Your task to perform on an android device: turn off notifications in google photos Image 0: 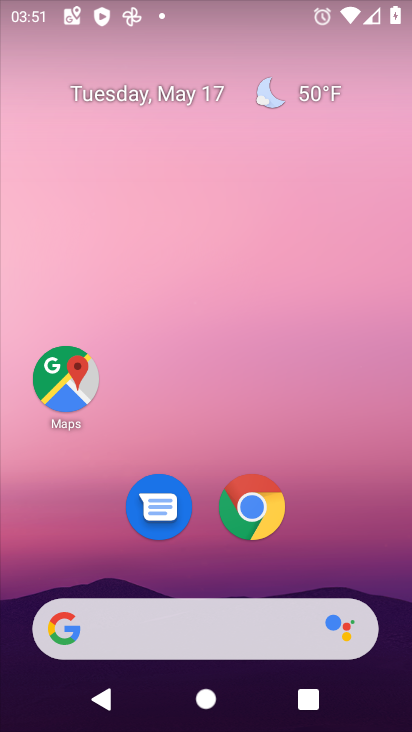
Step 0: drag from (308, 533) to (237, 108)
Your task to perform on an android device: turn off notifications in google photos Image 1: 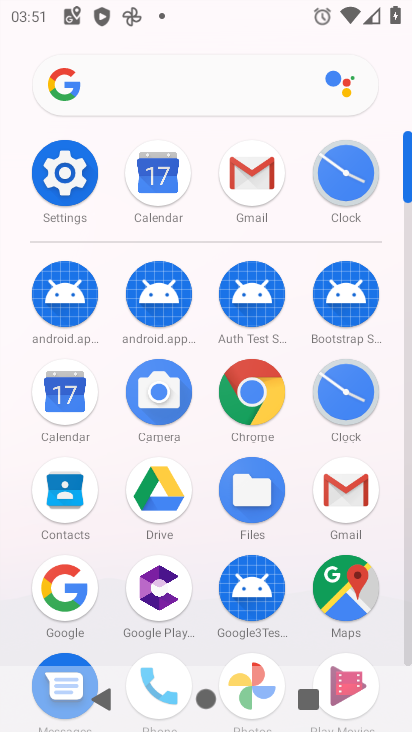
Step 1: drag from (299, 633) to (256, 259)
Your task to perform on an android device: turn off notifications in google photos Image 2: 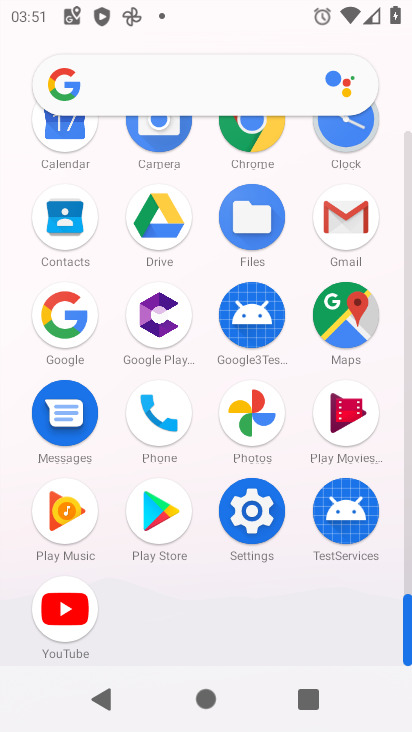
Step 2: click (258, 425)
Your task to perform on an android device: turn off notifications in google photos Image 3: 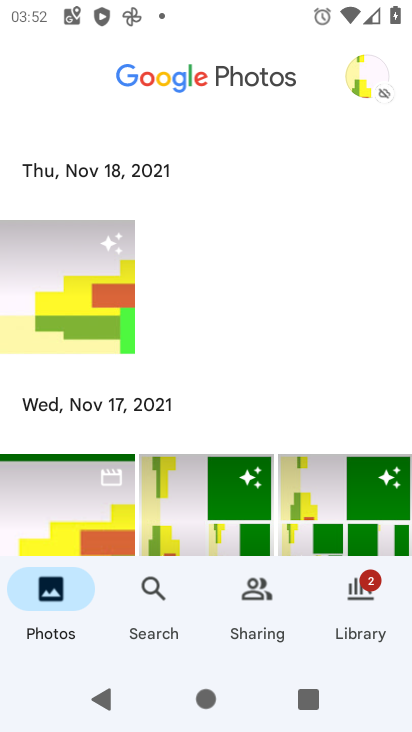
Step 3: click (363, 80)
Your task to perform on an android device: turn off notifications in google photos Image 4: 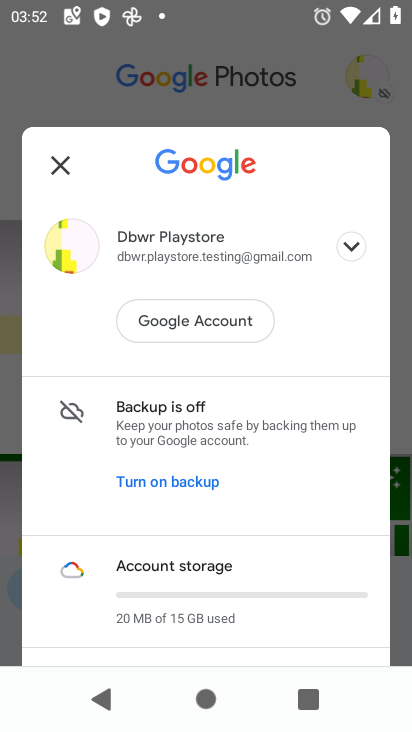
Step 4: drag from (216, 545) to (232, 250)
Your task to perform on an android device: turn off notifications in google photos Image 5: 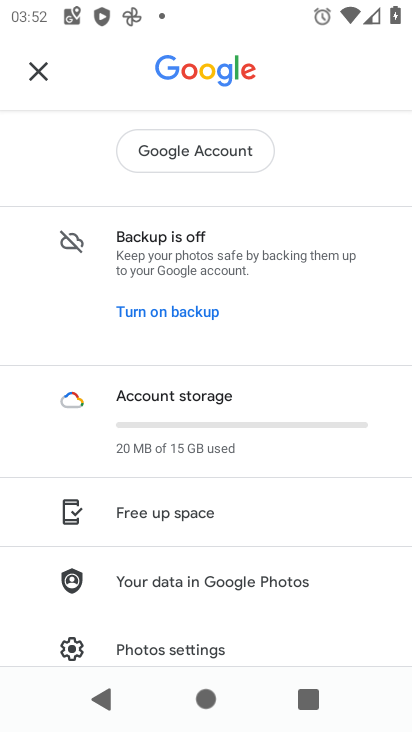
Step 5: click (203, 646)
Your task to perform on an android device: turn off notifications in google photos Image 6: 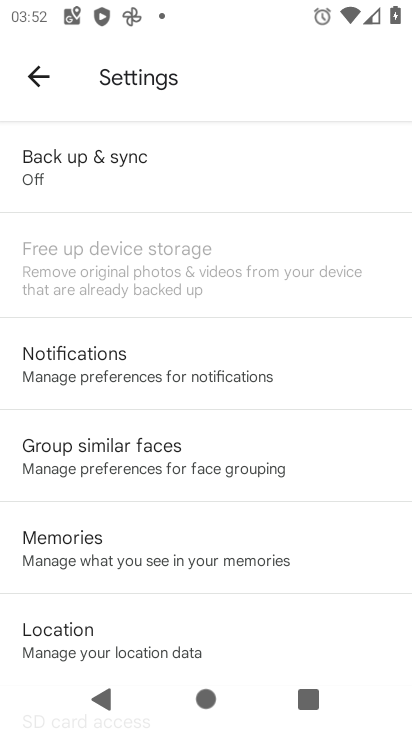
Step 6: click (138, 383)
Your task to perform on an android device: turn off notifications in google photos Image 7: 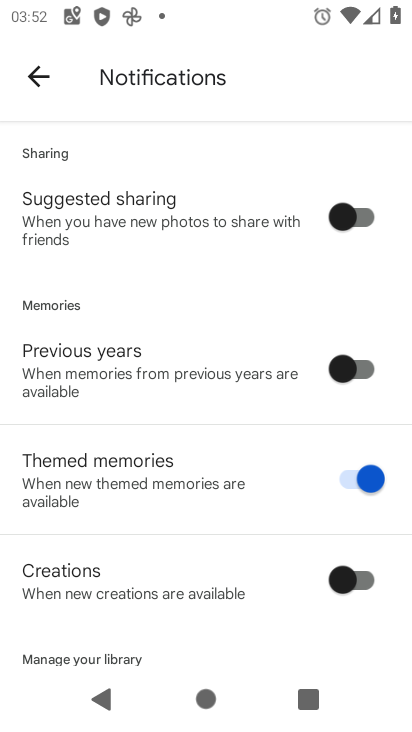
Step 7: click (368, 479)
Your task to perform on an android device: turn off notifications in google photos Image 8: 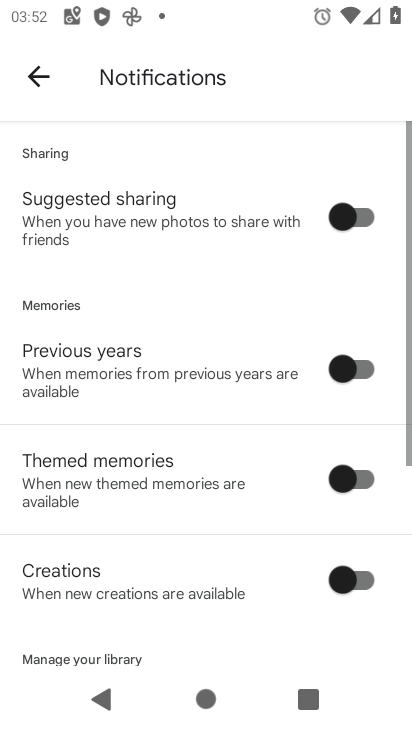
Step 8: task complete